Your task to perform on an android device: Open Chrome and go to the settings page Image 0: 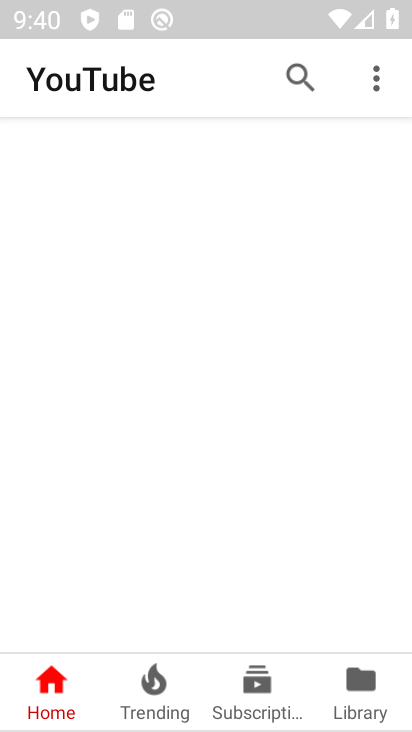
Step 0: drag from (328, 586) to (323, 167)
Your task to perform on an android device: Open Chrome and go to the settings page Image 1: 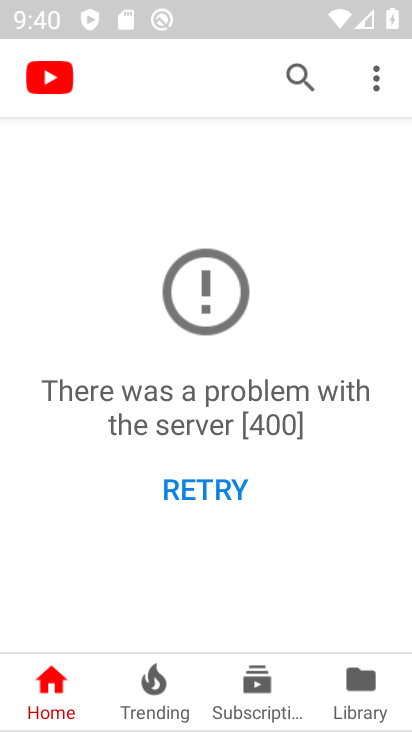
Step 1: press home button
Your task to perform on an android device: Open Chrome and go to the settings page Image 2: 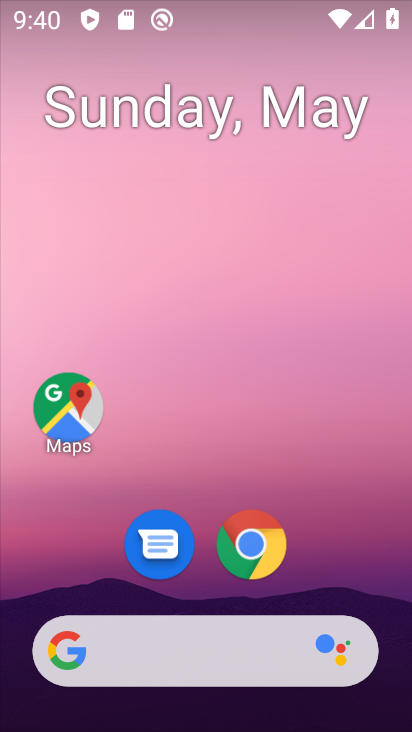
Step 2: drag from (323, 568) to (298, 177)
Your task to perform on an android device: Open Chrome and go to the settings page Image 3: 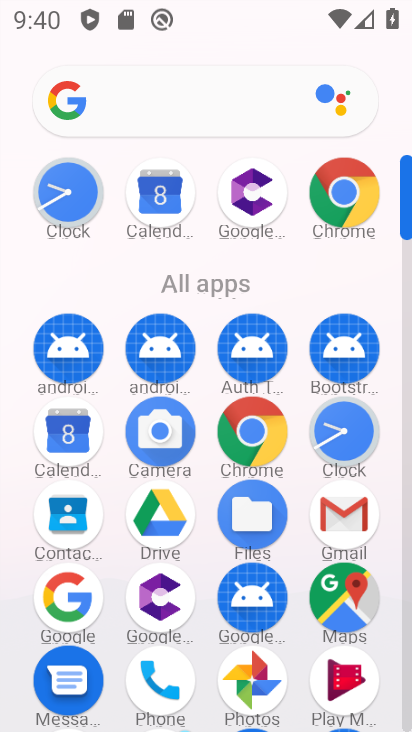
Step 3: click (338, 202)
Your task to perform on an android device: Open Chrome and go to the settings page Image 4: 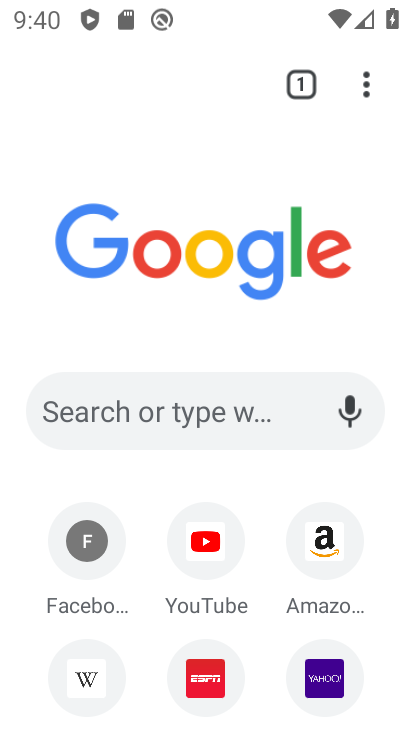
Step 4: task complete